Your task to perform on an android device: turn off location Image 0: 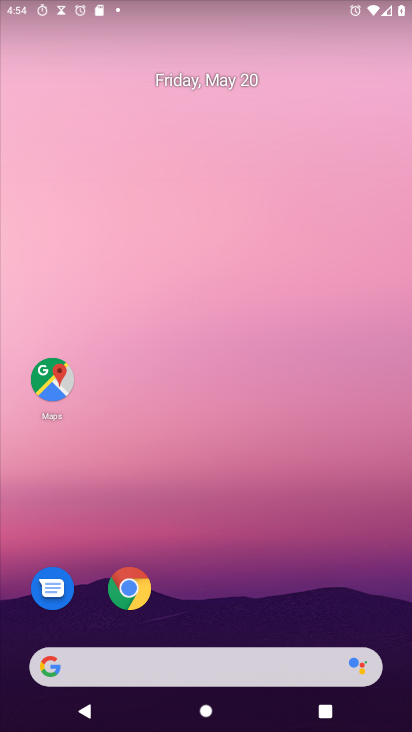
Step 0: drag from (290, 580) to (240, 113)
Your task to perform on an android device: turn off location Image 1: 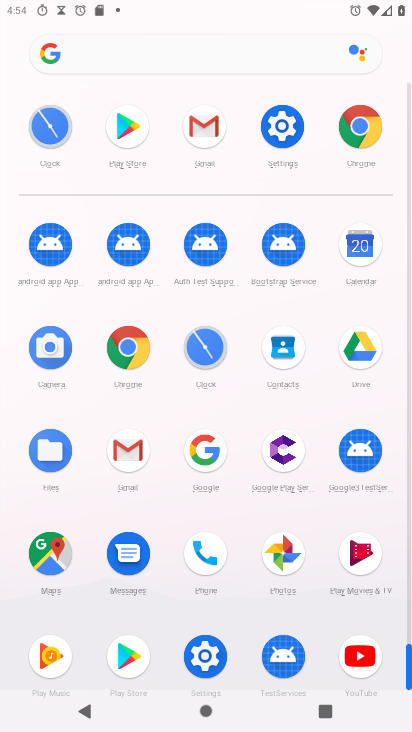
Step 1: click (278, 125)
Your task to perform on an android device: turn off location Image 2: 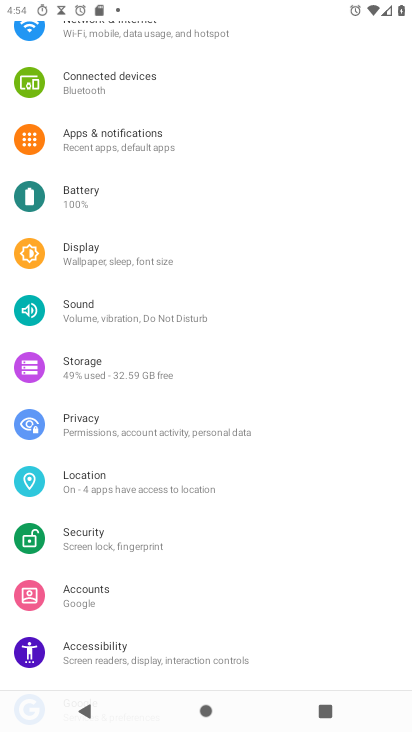
Step 2: click (94, 475)
Your task to perform on an android device: turn off location Image 3: 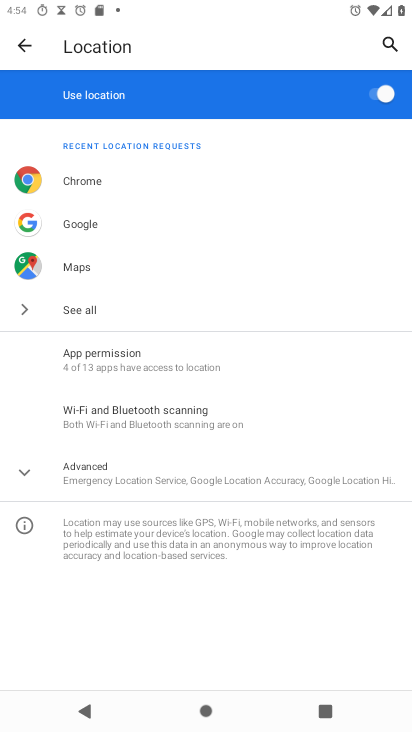
Step 3: click (386, 88)
Your task to perform on an android device: turn off location Image 4: 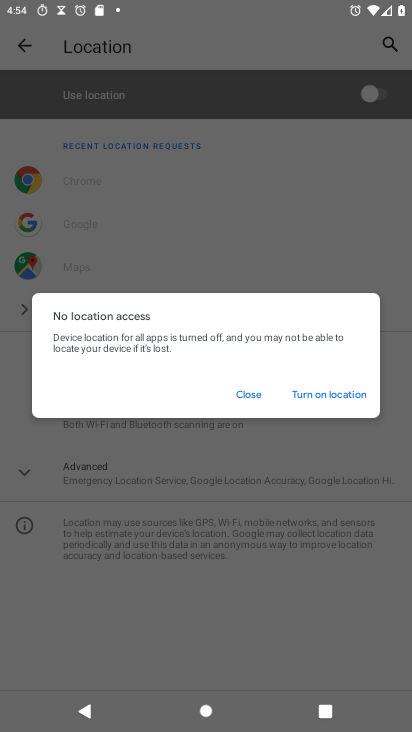
Step 4: task complete